Your task to perform on an android device: Go to Reddit.com Image 0: 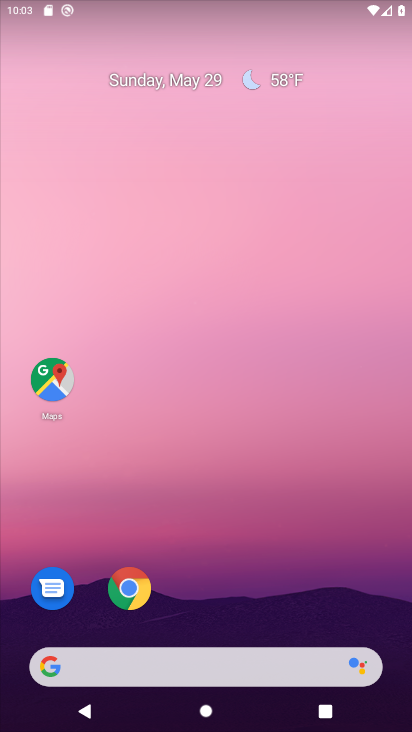
Step 0: drag from (195, 410) to (140, 37)
Your task to perform on an android device: Go to Reddit.com Image 1: 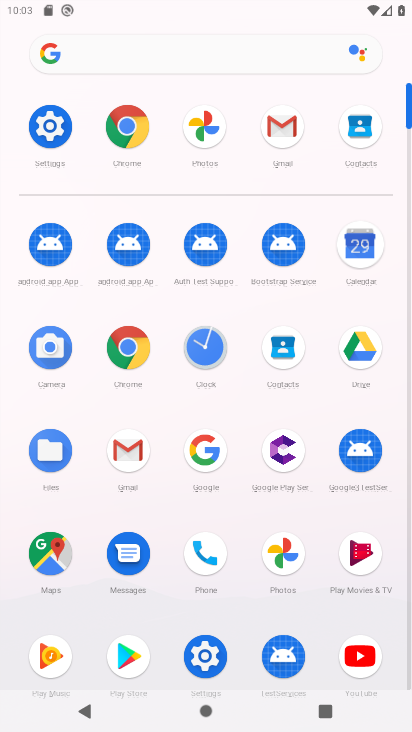
Step 1: click (132, 128)
Your task to perform on an android device: Go to Reddit.com Image 2: 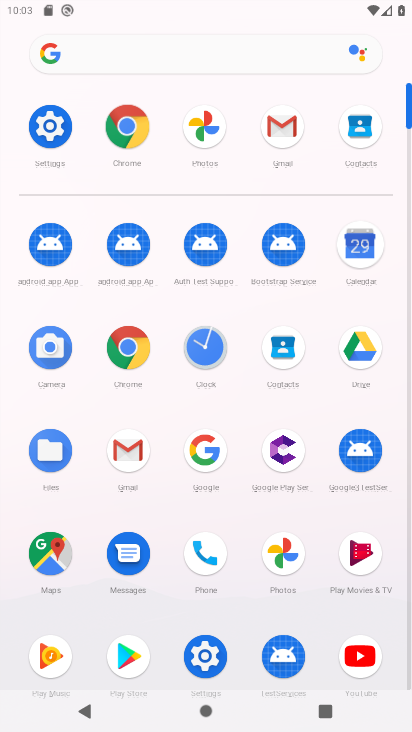
Step 2: click (132, 128)
Your task to perform on an android device: Go to Reddit.com Image 3: 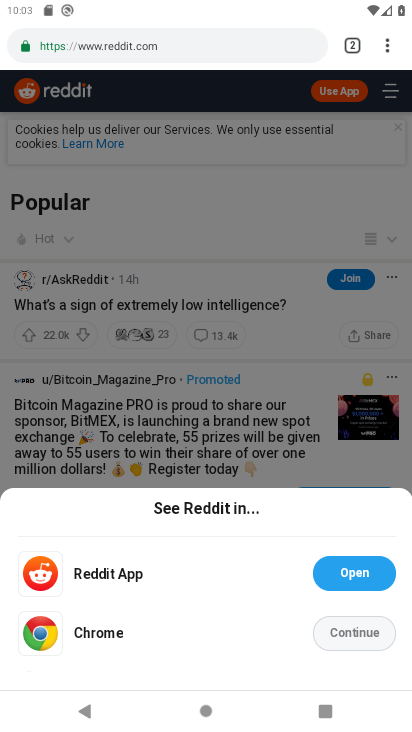
Step 3: task complete